Your task to perform on an android device: What is the news today? Image 0: 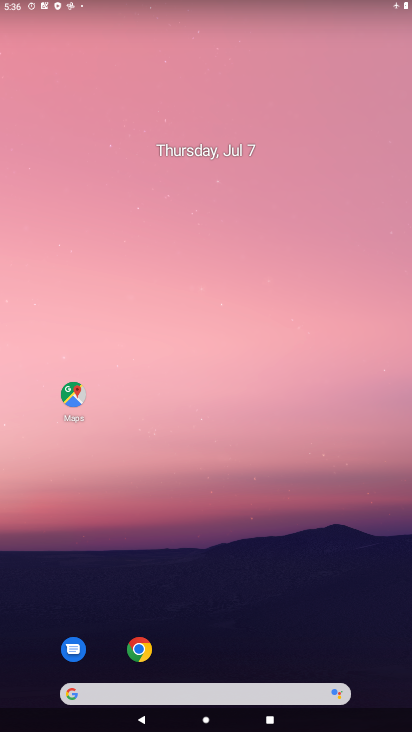
Step 0: drag from (325, 647) to (222, 16)
Your task to perform on an android device: What is the news today? Image 1: 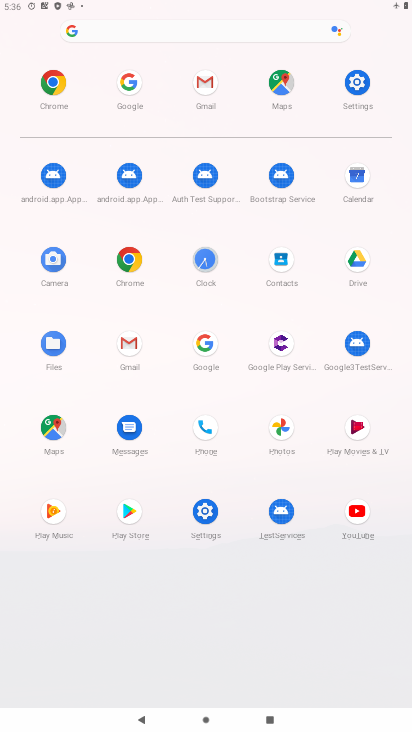
Step 1: click (127, 92)
Your task to perform on an android device: What is the news today? Image 2: 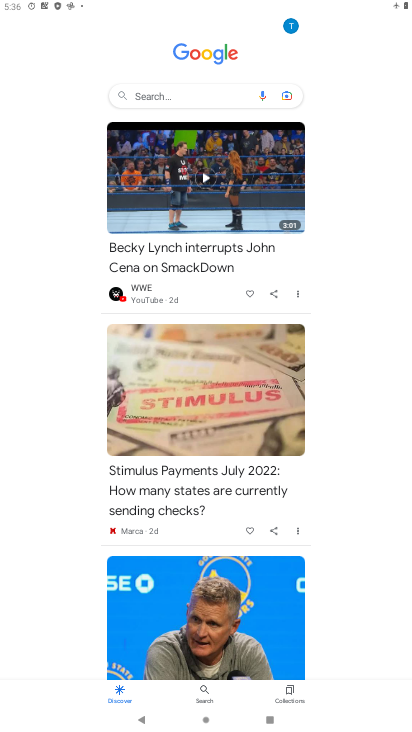
Step 2: click (173, 100)
Your task to perform on an android device: What is the news today? Image 3: 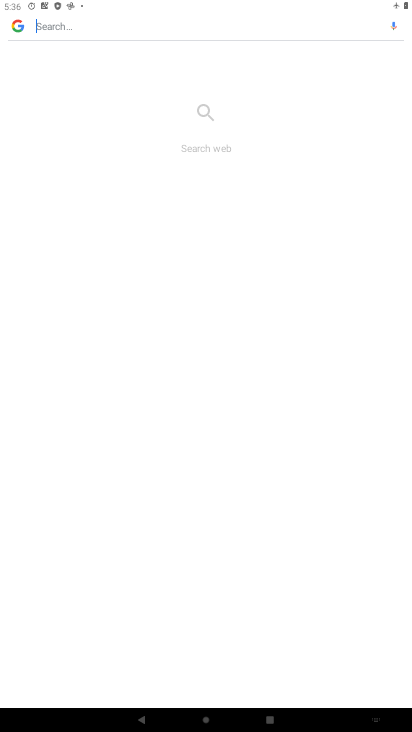
Step 3: type "What is the news today?"
Your task to perform on an android device: What is the news today? Image 4: 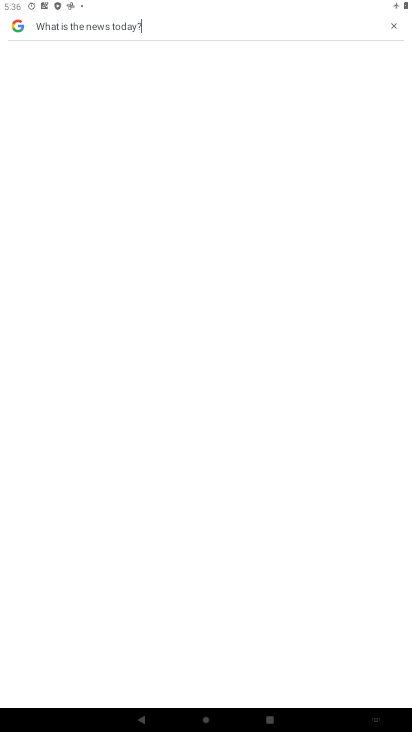
Step 4: task complete